Your task to perform on an android device: What's a good restaurant in Houston? Image 0: 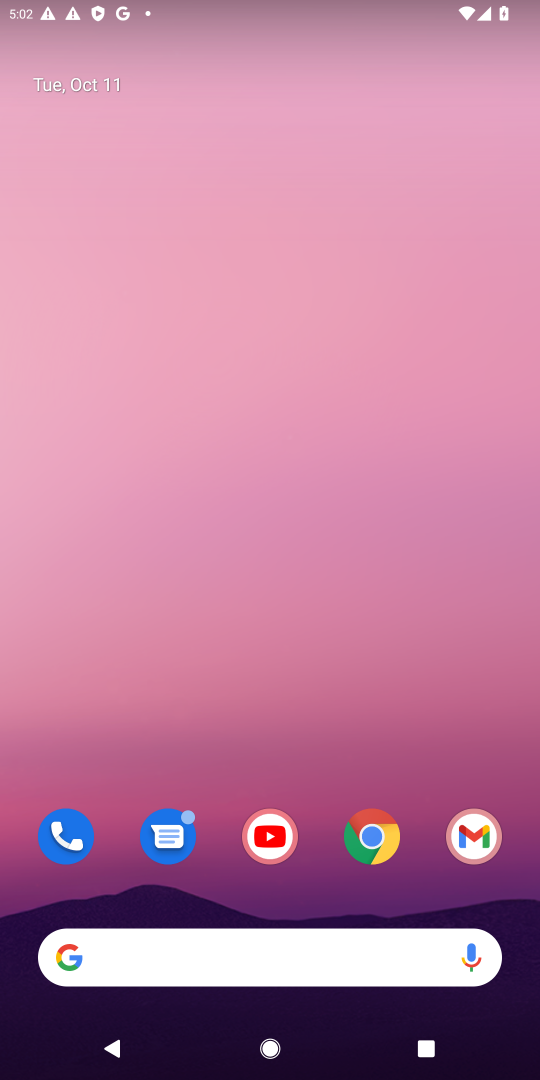
Step 0: click (369, 830)
Your task to perform on an android device: What's a good restaurant in Houston? Image 1: 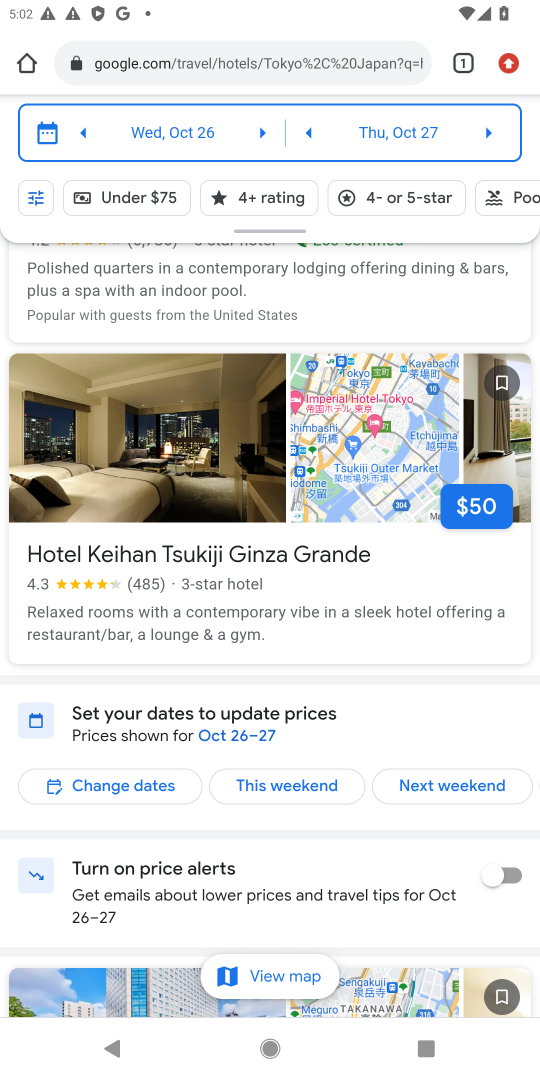
Step 1: click (349, 52)
Your task to perform on an android device: What's a good restaurant in Houston? Image 2: 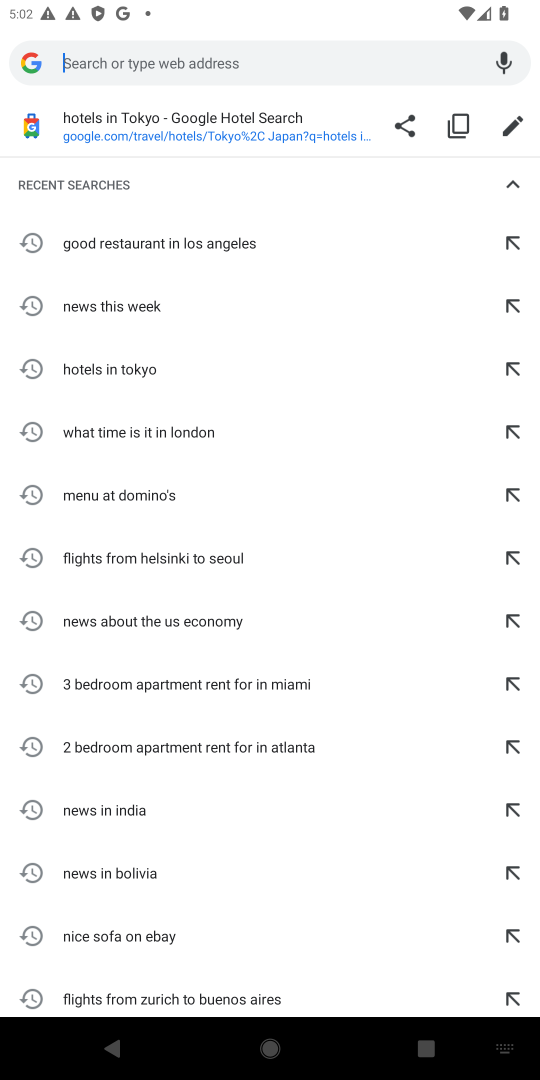
Step 2: press enter
Your task to perform on an android device: What's a good restaurant in Houston? Image 3: 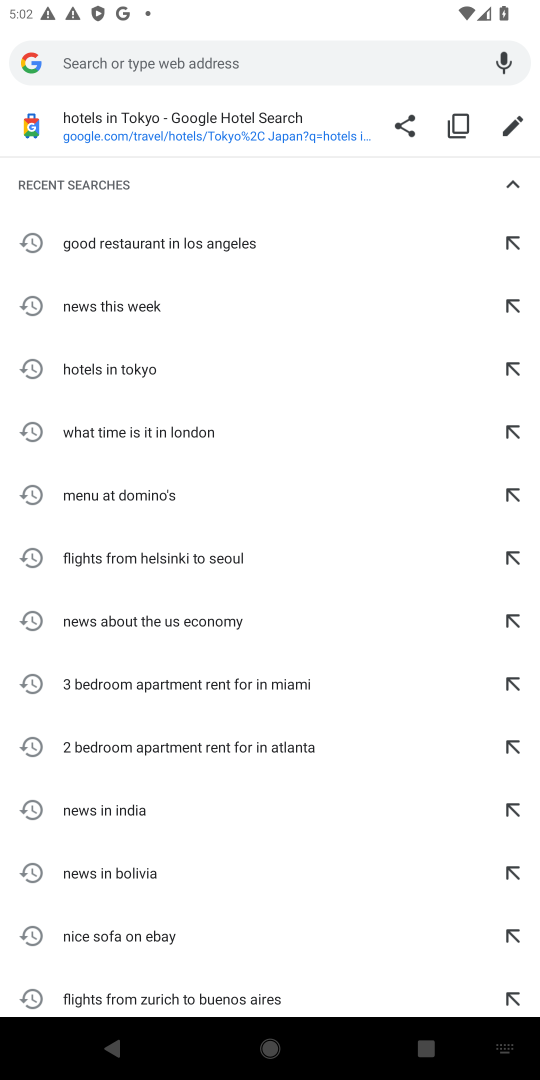
Step 3: type "good restaurant in Houston"
Your task to perform on an android device: What's a good restaurant in Houston? Image 4: 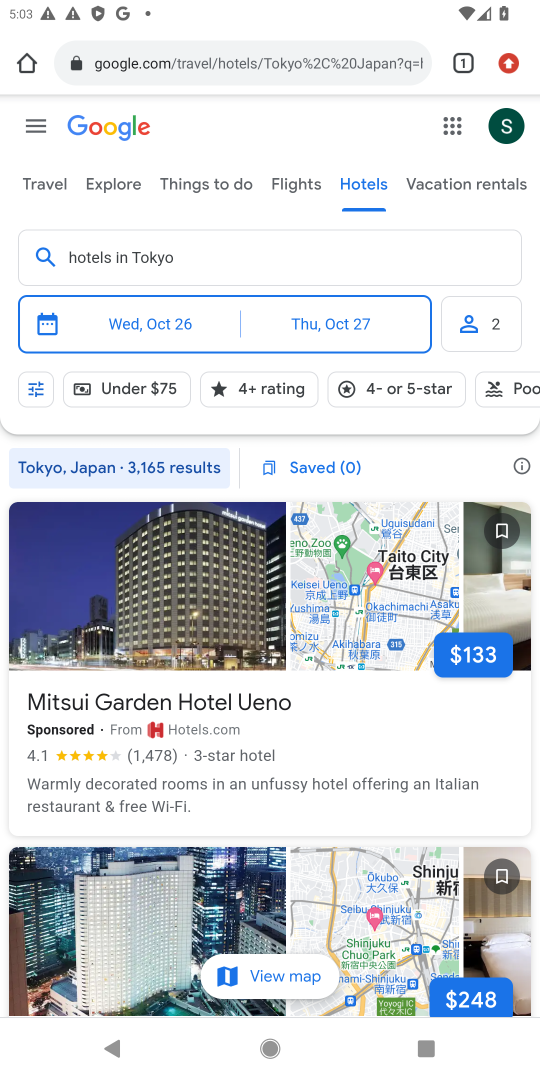
Step 4: drag from (188, 777) to (274, 245)
Your task to perform on an android device: What's a good restaurant in Houston? Image 5: 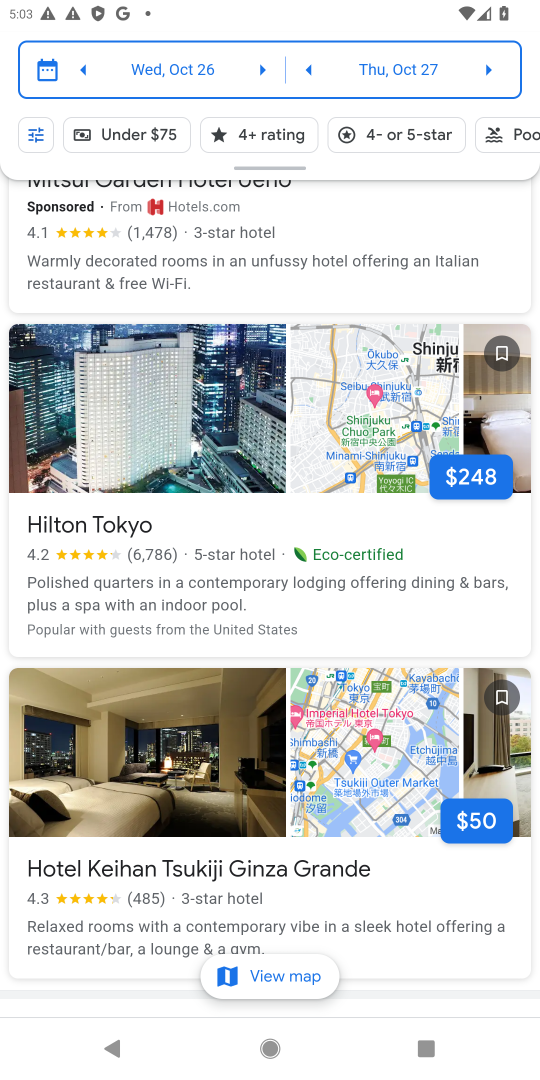
Step 5: drag from (260, 216) to (174, 1078)
Your task to perform on an android device: What's a good restaurant in Houston? Image 6: 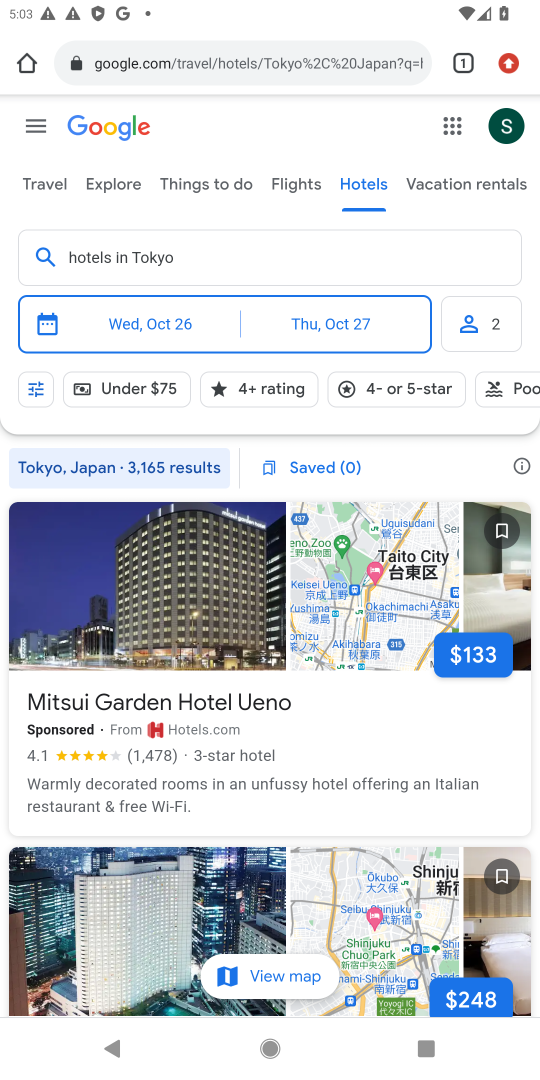
Step 6: click (268, 63)
Your task to perform on an android device: What's a good restaurant in Houston? Image 7: 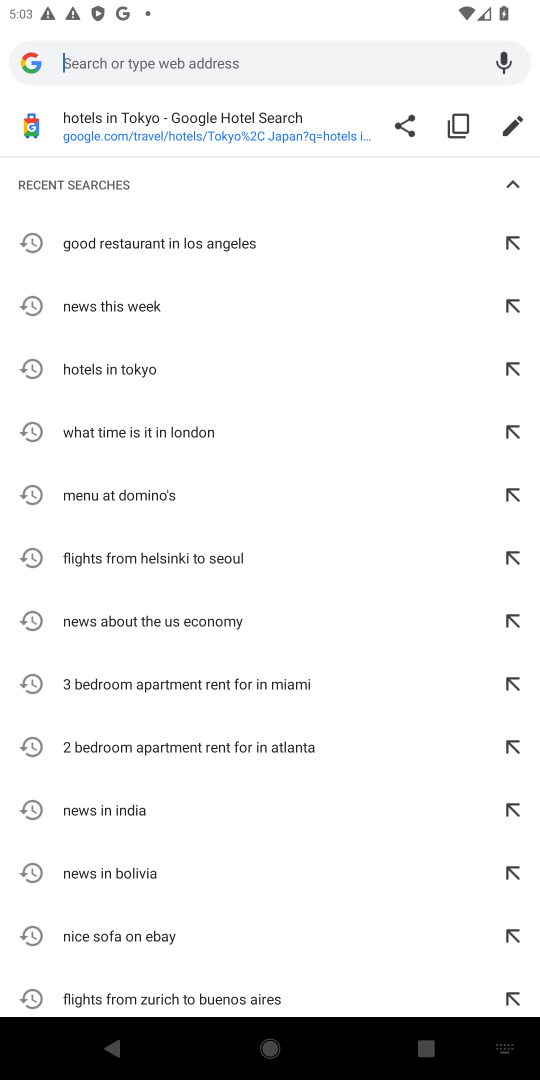
Step 7: type "good restaurant in Houston"
Your task to perform on an android device: What's a good restaurant in Houston? Image 8: 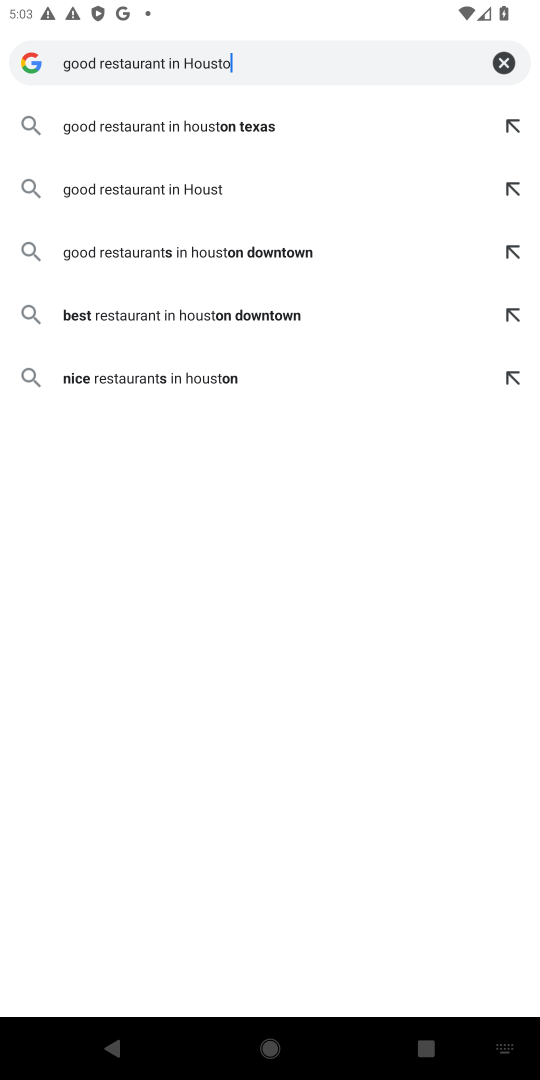
Step 8: press enter
Your task to perform on an android device: What's a good restaurant in Houston? Image 9: 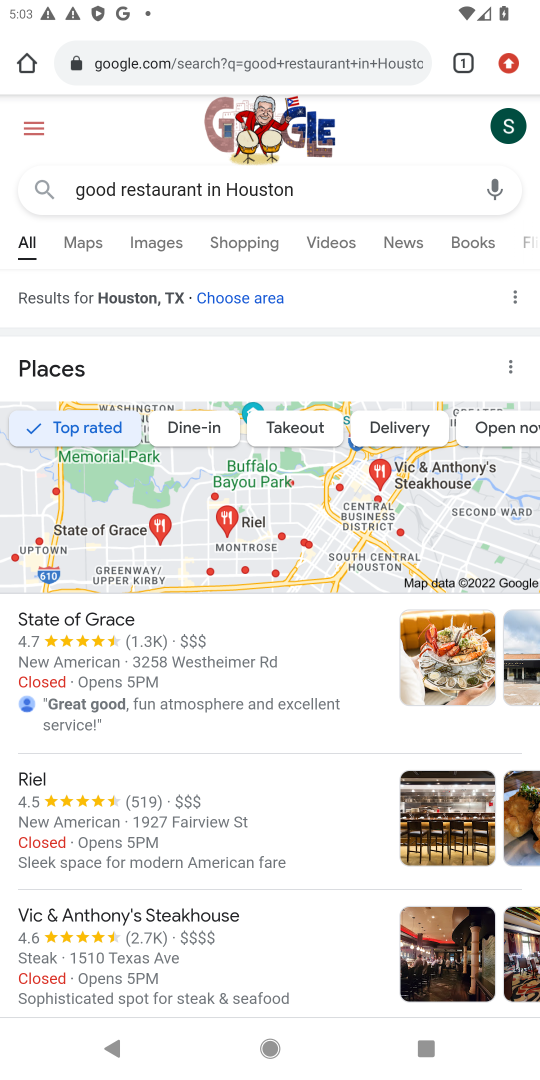
Step 9: drag from (151, 782) to (381, 0)
Your task to perform on an android device: What's a good restaurant in Houston? Image 10: 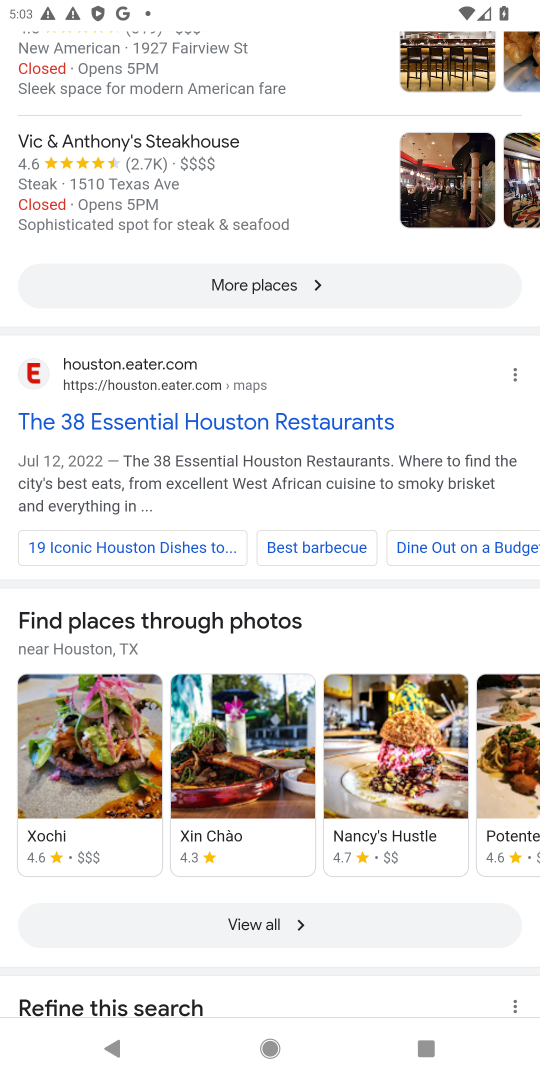
Step 10: click (308, 285)
Your task to perform on an android device: What's a good restaurant in Houston? Image 11: 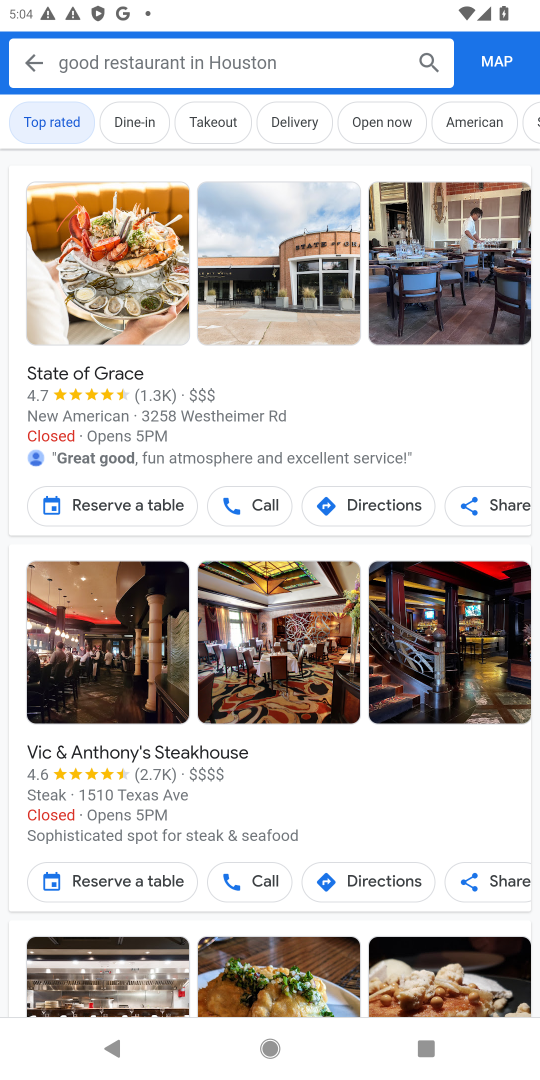
Step 11: task complete